Your task to perform on an android device: Open accessibility settings Image 0: 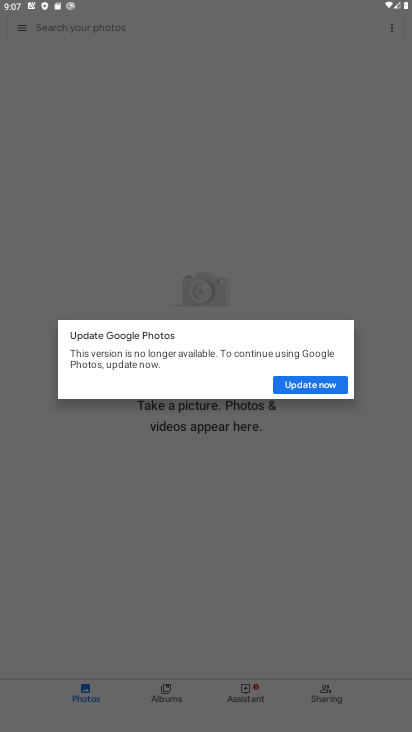
Step 0: press home button
Your task to perform on an android device: Open accessibility settings Image 1: 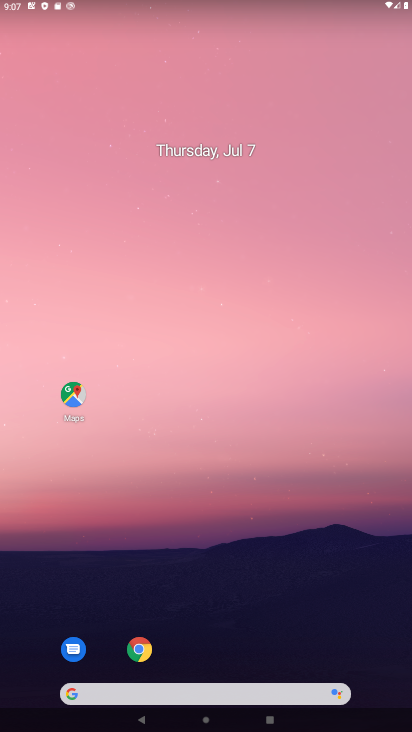
Step 1: drag from (237, 716) to (249, 109)
Your task to perform on an android device: Open accessibility settings Image 2: 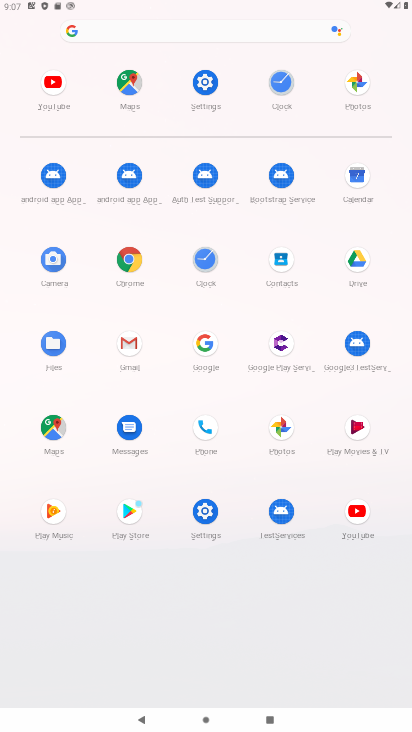
Step 2: click (204, 73)
Your task to perform on an android device: Open accessibility settings Image 3: 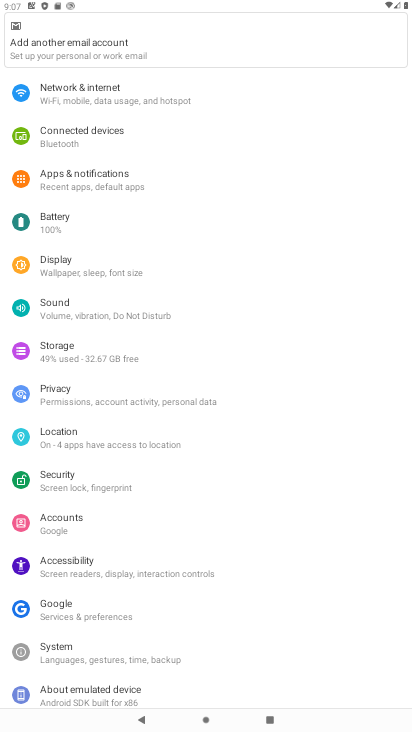
Step 3: click (85, 562)
Your task to perform on an android device: Open accessibility settings Image 4: 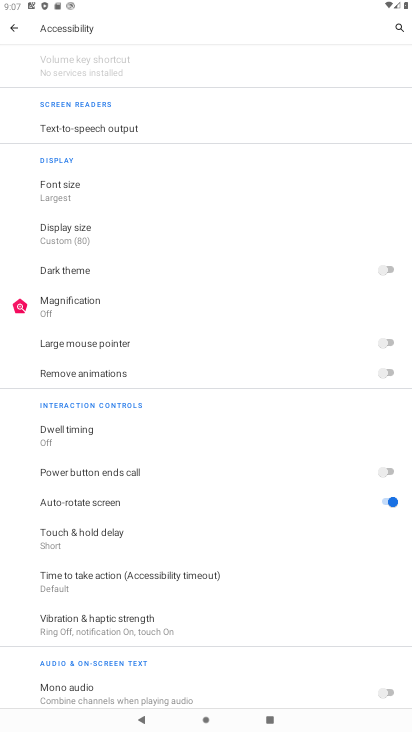
Step 4: task complete